Your task to perform on an android device: What's the weather going to be tomorrow? Image 0: 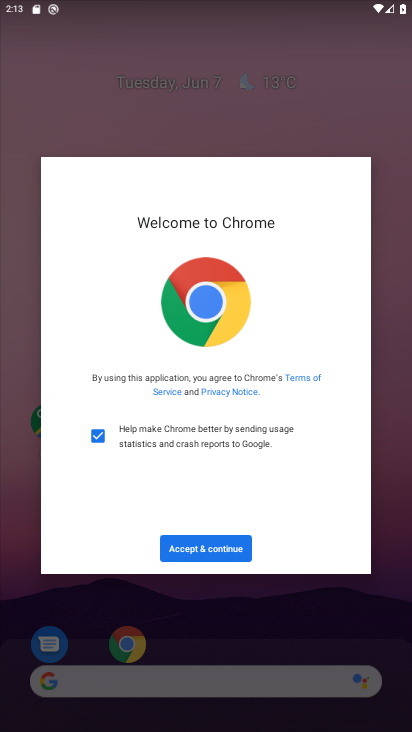
Step 0: press home button
Your task to perform on an android device: What's the weather going to be tomorrow? Image 1: 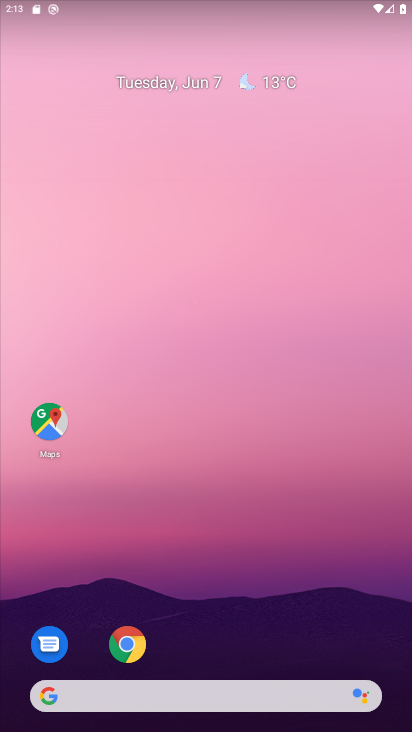
Step 1: click (144, 692)
Your task to perform on an android device: What's the weather going to be tomorrow? Image 2: 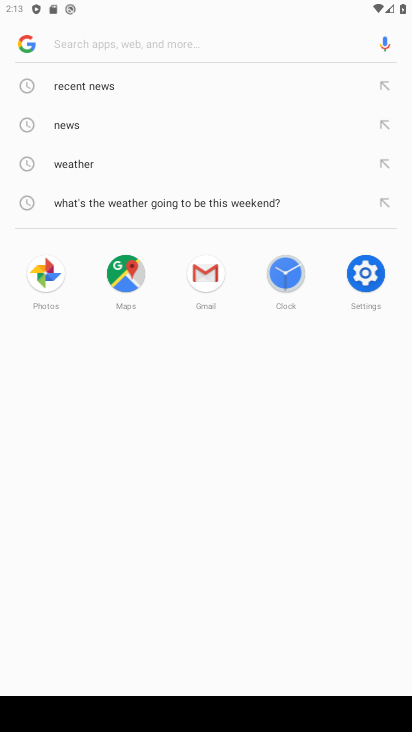
Step 2: type "what's the weather going to be tomorrow"
Your task to perform on an android device: What's the weather going to be tomorrow? Image 3: 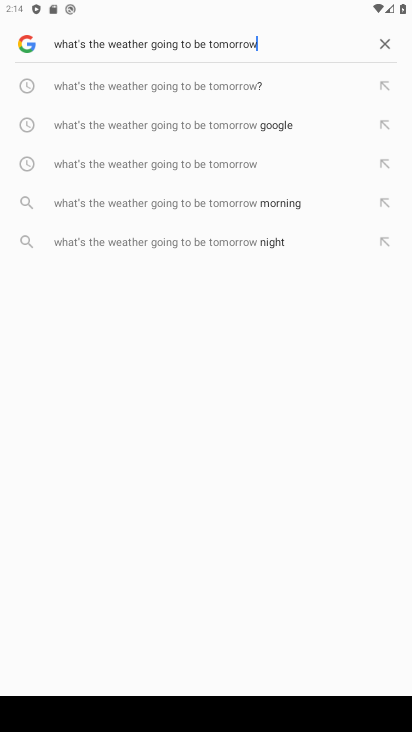
Step 3: click (97, 98)
Your task to perform on an android device: What's the weather going to be tomorrow? Image 4: 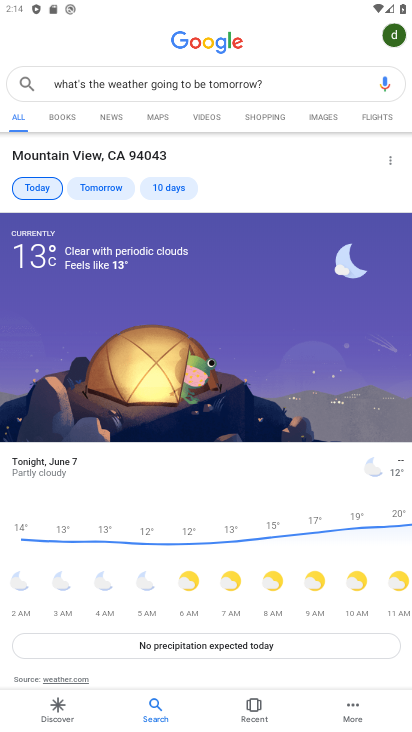
Step 4: task complete